Your task to perform on an android device: toggle notifications settings in the gmail app Image 0: 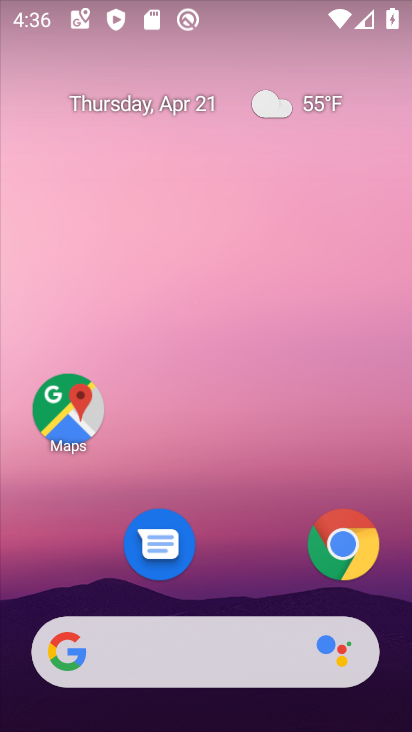
Step 0: press home button
Your task to perform on an android device: toggle notifications settings in the gmail app Image 1: 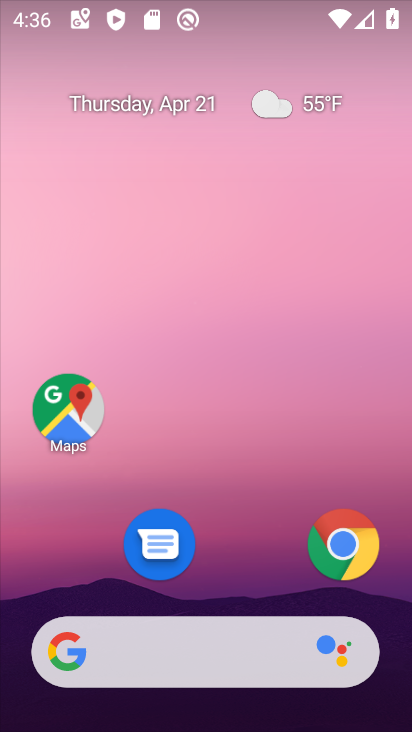
Step 1: drag from (230, 714) to (289, 315)
Your task to perform on an android device: toggle notifications settings in the gmail app Image 2: 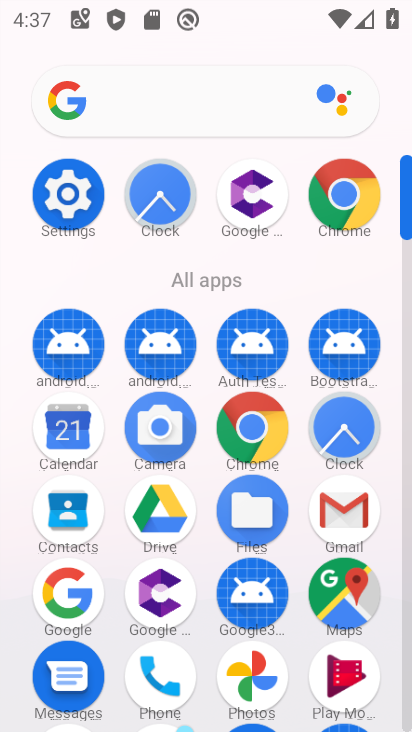
Step 2: click (376, 509)
Your task to perform on an android device: toggle notifications settings in the gmail app Image 3: 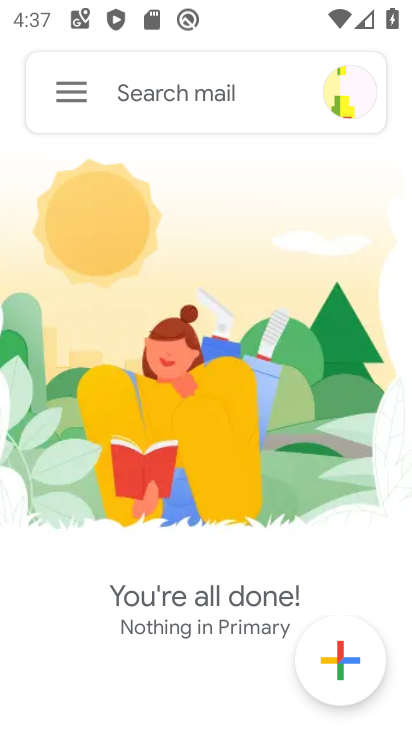
Step 3: click (71, 90)
Your task to perform on an android device: toggle notifications settings in the gmail app Image 4: 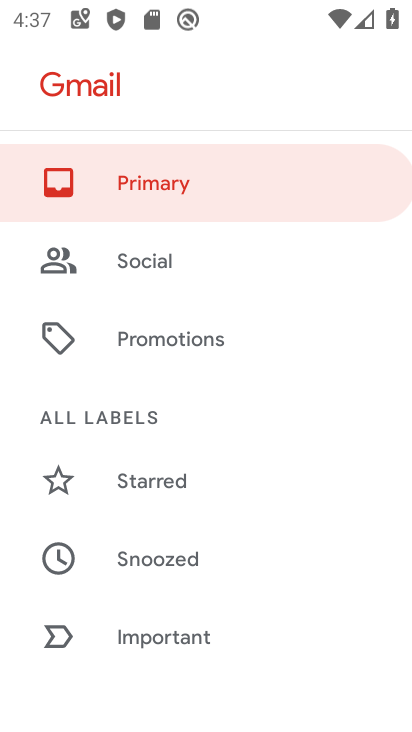
Step 4: drag from (212, 505) to (220, 166)
Your task to perform on an android device: toggle notifications settings in the gmail app Image 5: 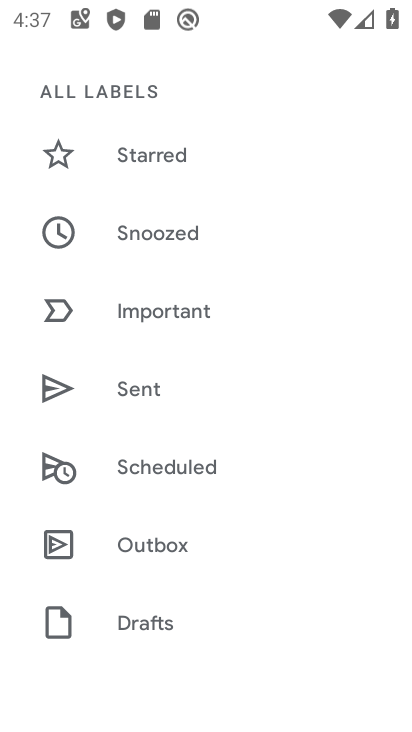
Step 5: drag from (207, 579) to (290, 210)
Your task to perform on an android device: toggle notifications settings in the gmail app Image 6: 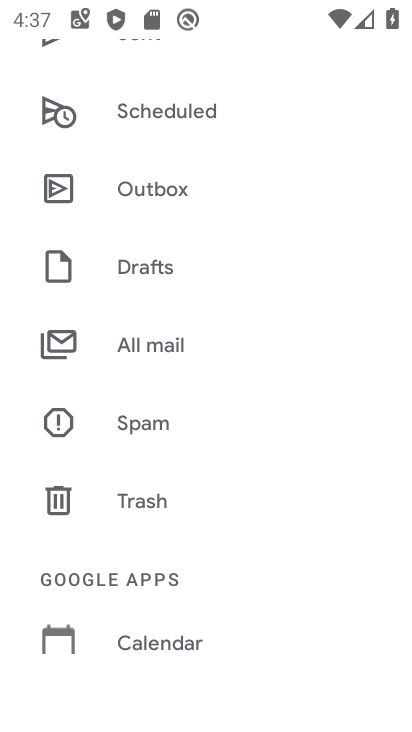
Step 6: drag from (206, 541) to (267, 176)
Your task to perform on an android device: toggle notifications settings in the gmail app Image 7: 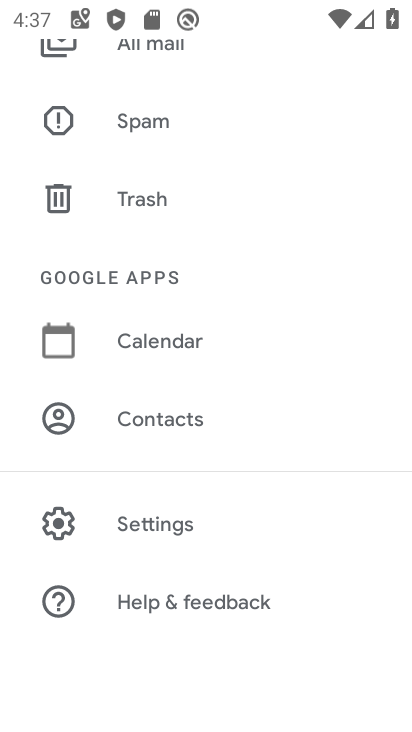
Step 7: click (163, 515)
Your task to perform on an android device: toggle notifications settings in the gmail app Image 8: 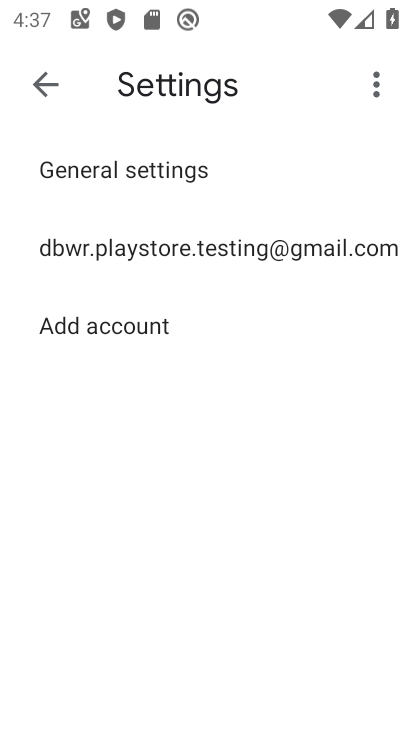
Step 8: click (144, 178)
Your task to perform on an android device: toggle notifications settings in the gmail app Image 9: 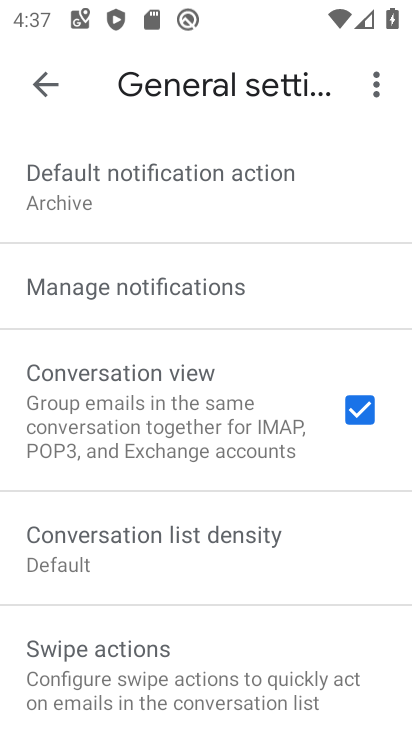
Step 9: click (145, 205)
Your task to perform on an android device: toggle notifications settings in the gmail app Image 10: 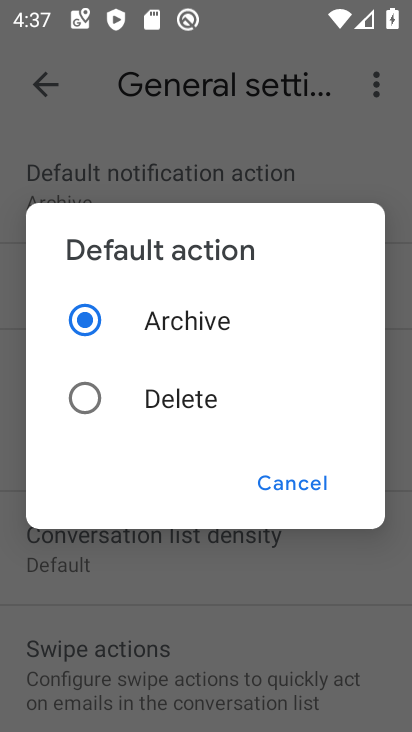
Step 10: click (81, 389)
Your task to perform on an android device: toggle notifications settings in the gmail app Image 11: 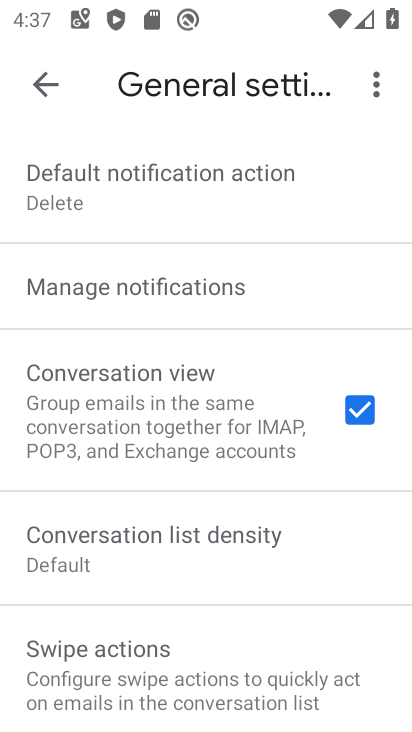
Step 11: click (131, 195)
Your task to perform on an android device: toggle notifications settings in the gmail app Image 12: 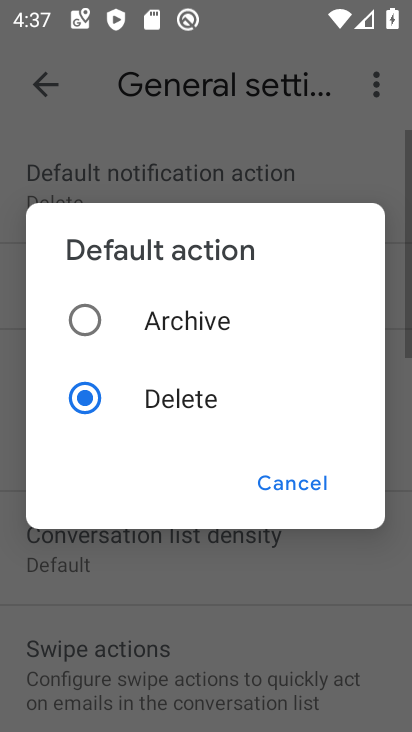
Step 12: click (82, 304)
Your task to perform on an android device: toggle notifications settings in the gmail app Image 13: 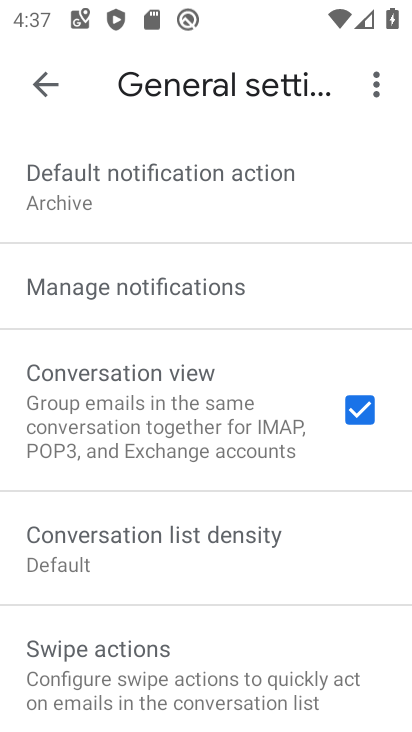
Step 13: task complete